Your task to perform on an android device: turn on translation in the chrome app Image 0: 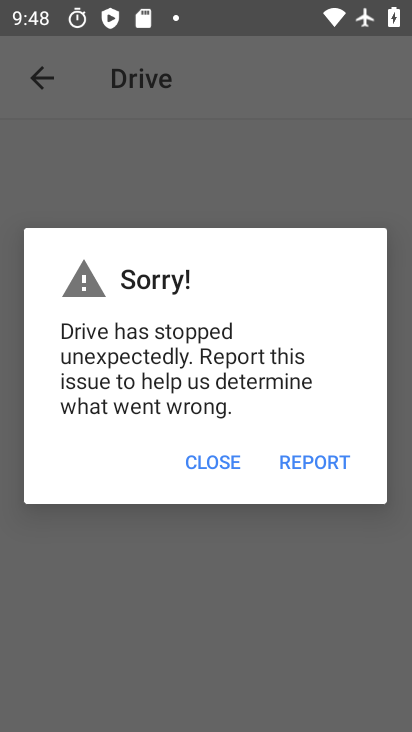
Step 0: click (227, 465)
Your task to perform on an android device: turn on translation in the chrome app Image 1: 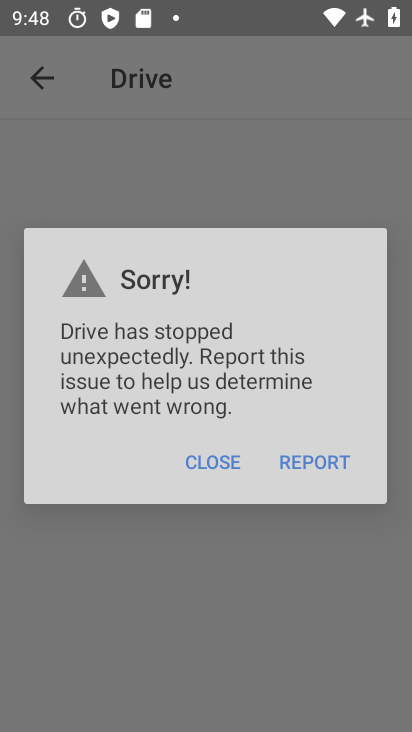
Step 1: click (227, 465)
Your task to perform on an android device: turn on translation in the chrome app Image 2: 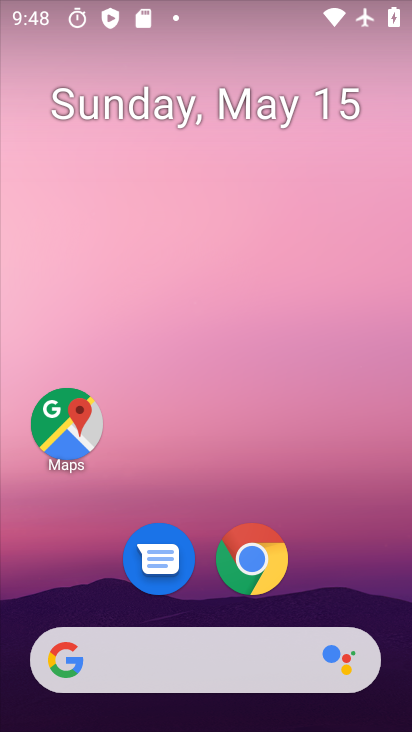
Step 2: drag from (351, 651) to (267, 66)
Your task to perform on an android device: turn on translation in the chrome app Image 3: 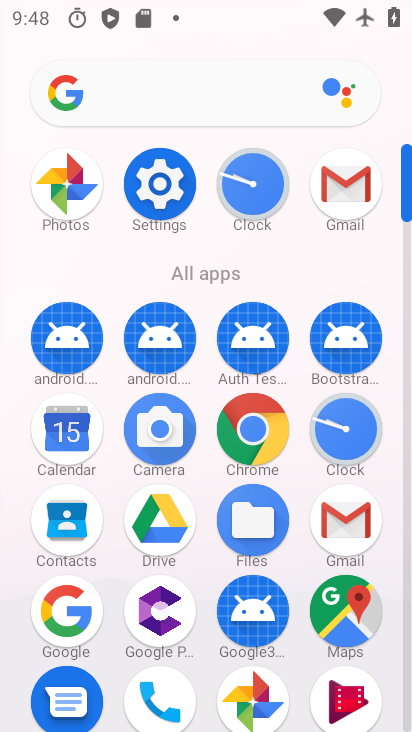
Step 3: click (244, 437)
Your task to perform on an android device: turn on translation in the chrome app Image 4: 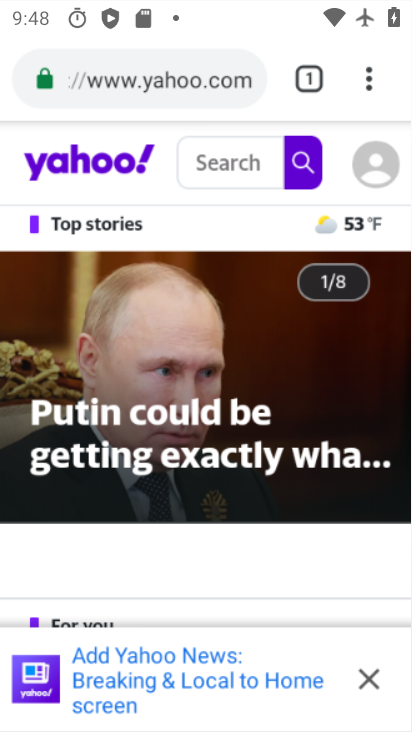
Step 4: click (246, 433)
Your task to perform on an android device: turn on translation in the chrome app Image 5: 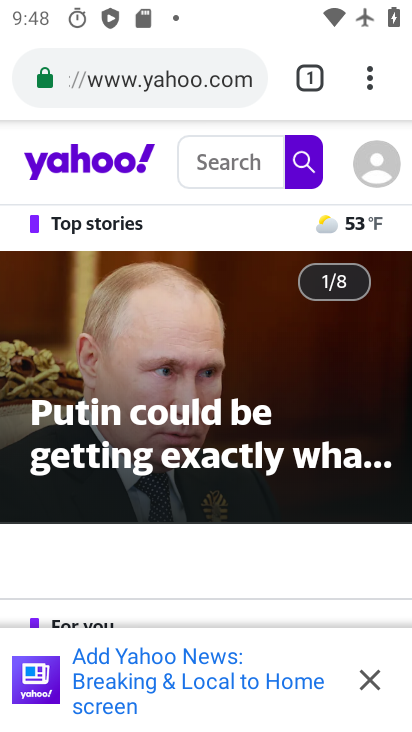
Step 5: drag from (366, 77) to (93, 568)
Your task to perform on an android device: turn on translation in the chrome app Image 6: 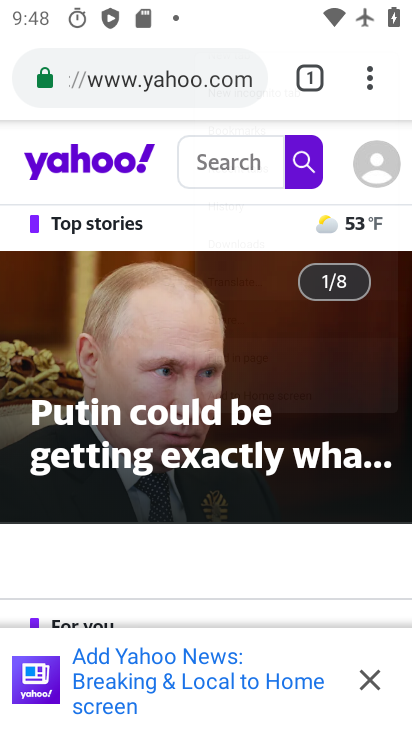
Step 6: drag from (92, 516) to (91, 468)
Your task to perform on an android device: turn on translation in the chrome app Image 7: 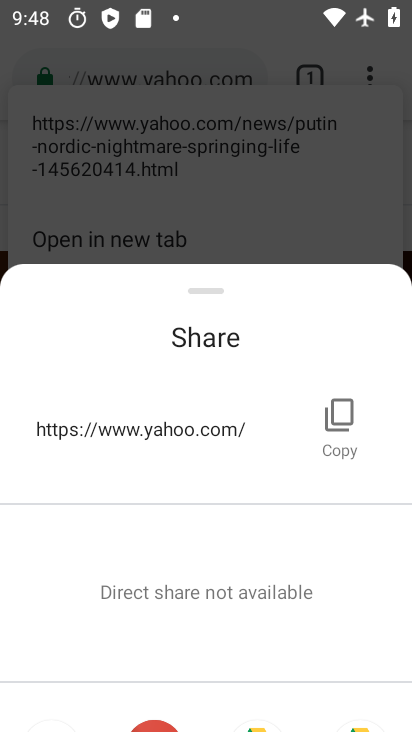
Step 7: press back button
Your task to perform on an android device: turn on translation in the chrome app Image 8: 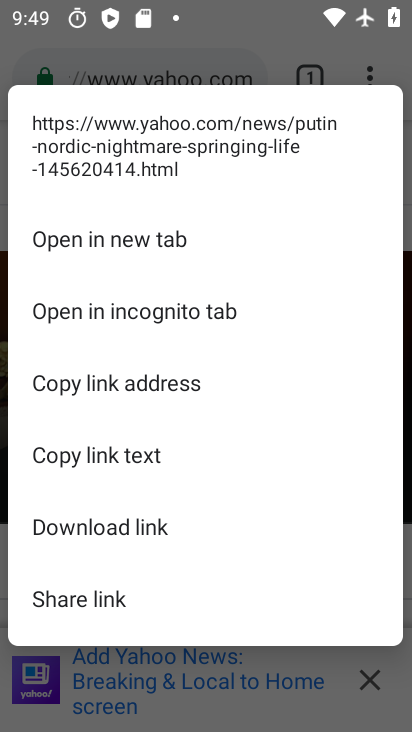
Step 8: press back button
Your task to perform on an android device: turn on translation in the chrome app Image 9: 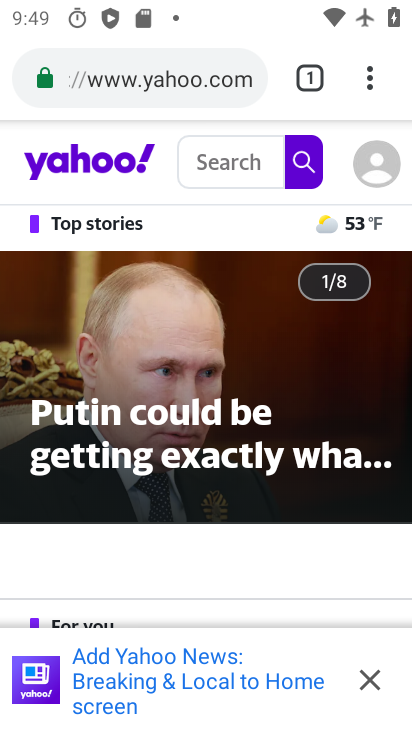
Step 9: press back button
Your task to perform on an android device: turn on translation in the chrome app Image 10: 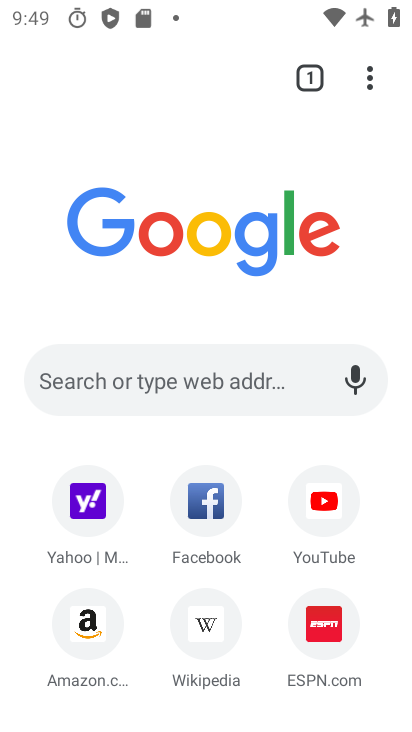
Step 10: drag from (367, 79) to (80, 613)
Your task to perform on an android device: turn on translation in the chrome app Image 11: 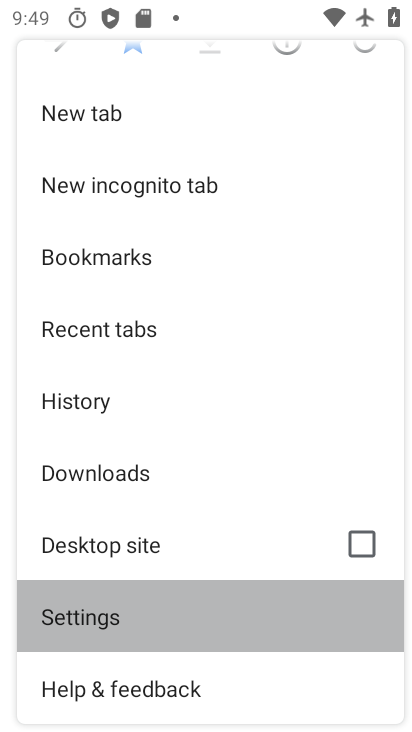
Step 11: click (80, 618)
Your task to perform on an android device: turn on translation in the chrome app Image 12: 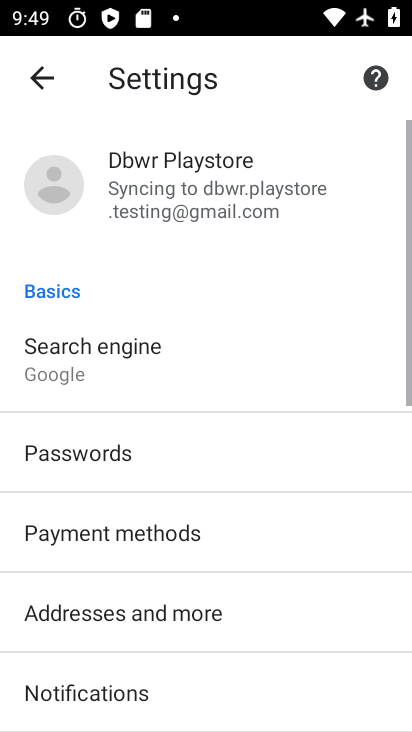
Step 12: drag from (96, 635) to (175, 297)
Your task to perform on an android device: turn on translation in the chrome app Image 13: 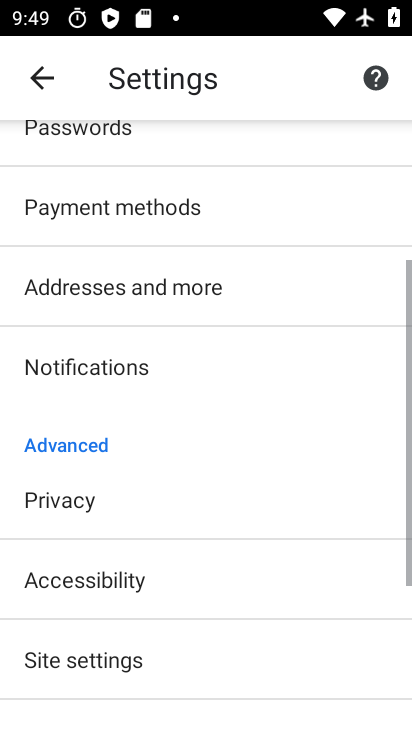
Step 13: drag from (168, 330) to (160, 161)
Your task to perform on an android device: turn on translation in the chrome app Image 14: 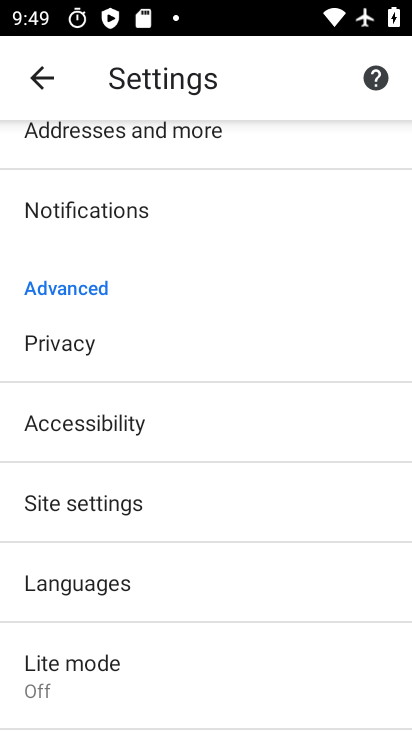
Step 14: click (60, 579)
Your task to perform on an android device: turn on translation in the chrome app Image 15: 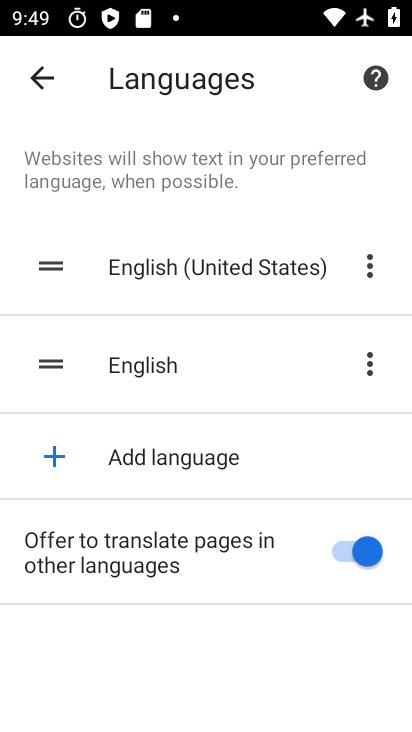
Step 15: click (342, 543)
Your task to perform on an android device: turn on translation in the chrome app Image 16: 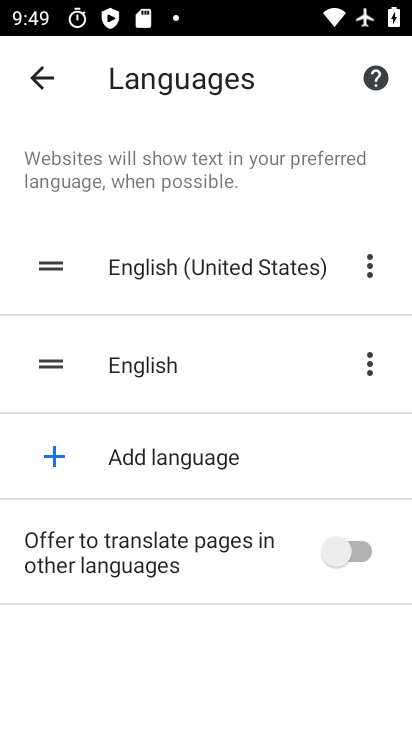
Step 16: click (361, 554)
Your task to perform on an android device: turn on translation in the chrome app Image 17: 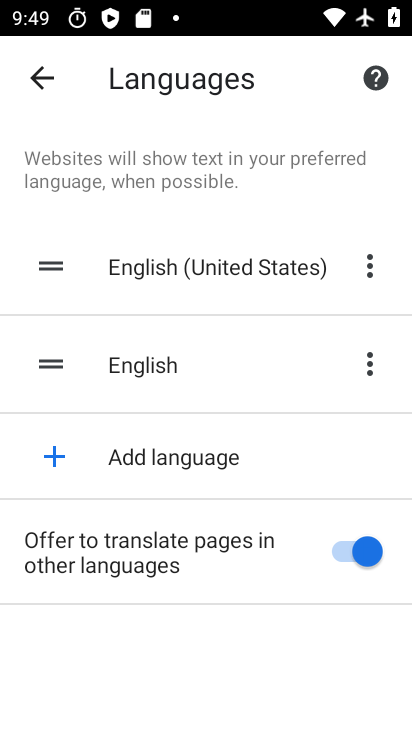
Step 17: task complete